Your task to perform on an android device: Open CNN.com Image 0: 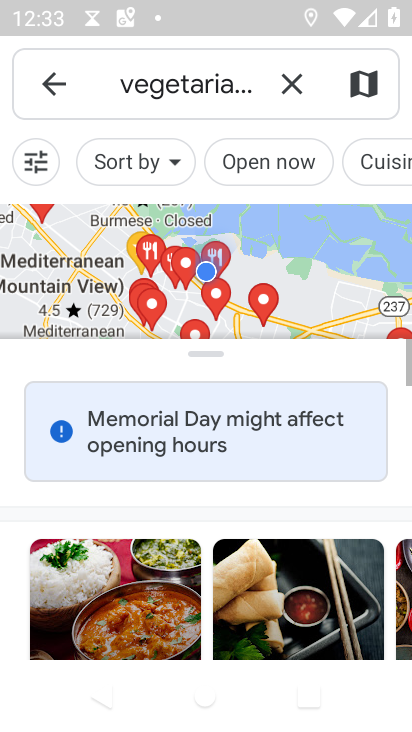
Step 0: press home button
Your task to perform on an android device: Open CNN.com Image 1: 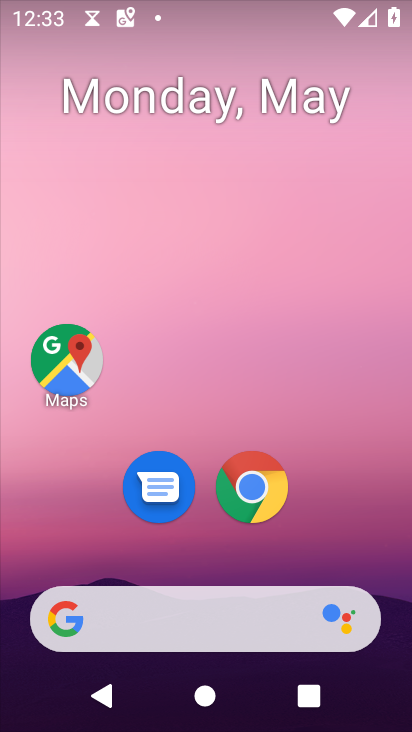
Step 1: click (249, 491)
Your task to perform on an android device: Open CNN.com Image 2: 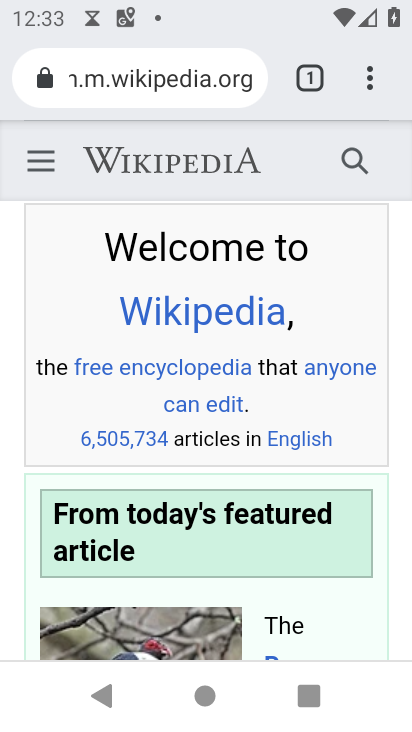
Step 2: click (126, 61)
Your task to perform on an android device: Open CNN.com Image 3: 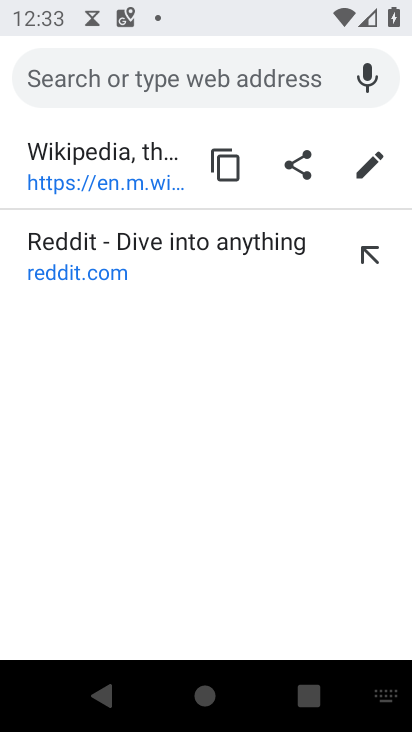
Step 3: type "CNN.com"
Your task to perform on an android device: Open CNN.com Image 4: 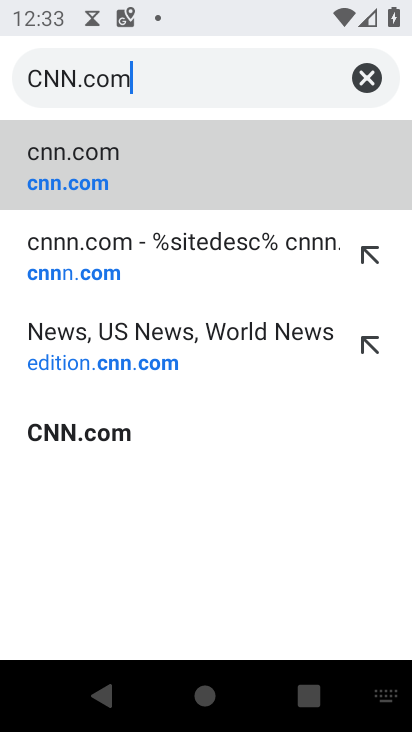
Step 4: click (82, 172)
Your task to perform on an android device: Open CNN.com Image 5: 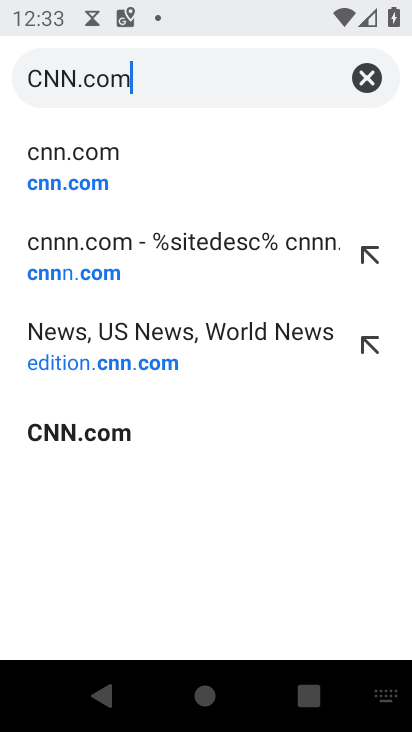
Step 5: click (84, 177)
Your task to perform on an android device: Open CNN.com Image 6: 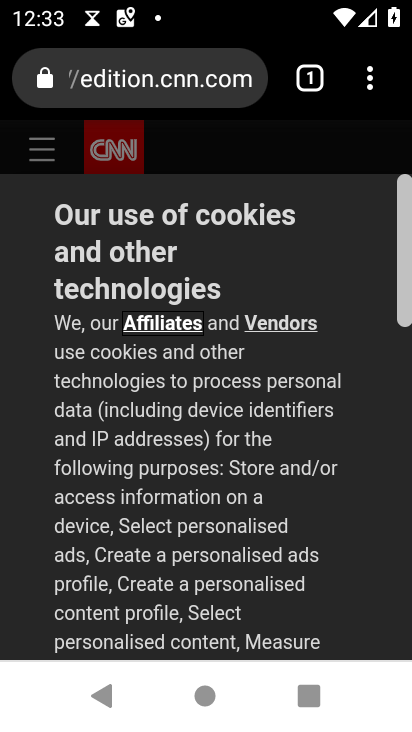
Step 6: task complete